Your task to perform on an android device: Go to location settings Image 0: 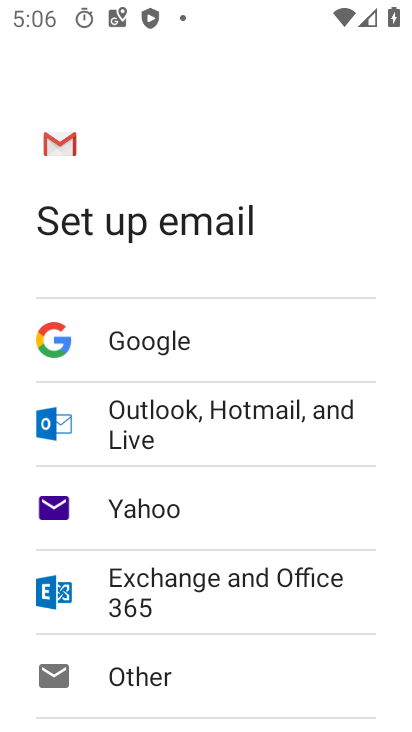
Step 0: press home button
Your task to perform on an android device: Go to location settings Image 1: 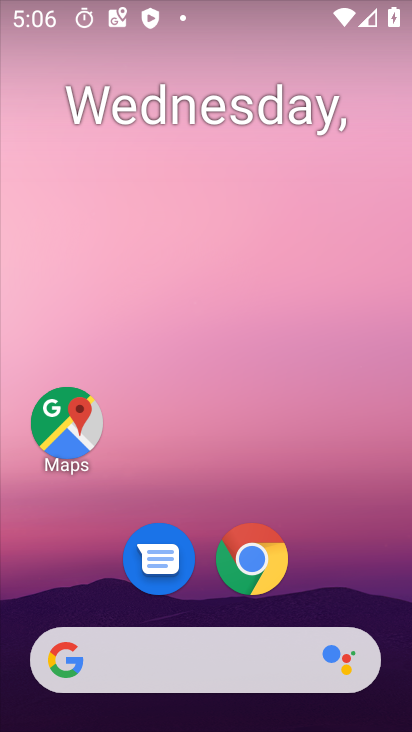
Step 1: drag from (353, 559) to (212, 23)
Your task to perform on an android device: Go to location settings Image 2: 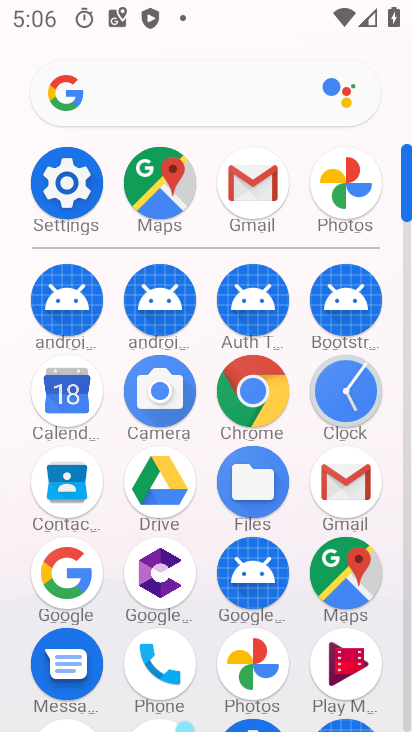
Step 2: click (67, 199)
Your task to perform on an android device: Go to location settings Image 3: 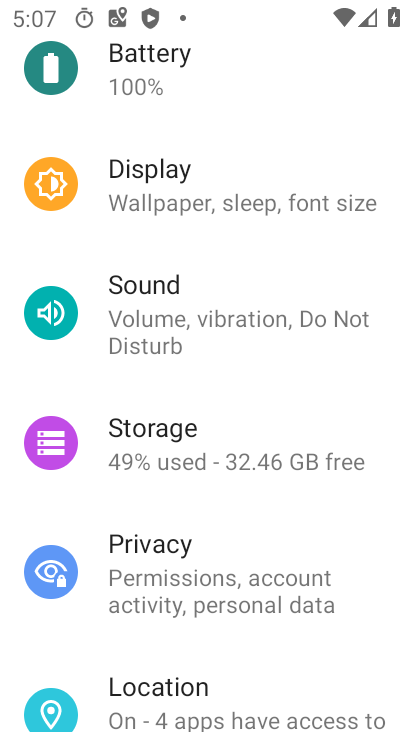
Step 3: click (208, 703)
Your task to perform on an android device: Go to location settings Image 4: 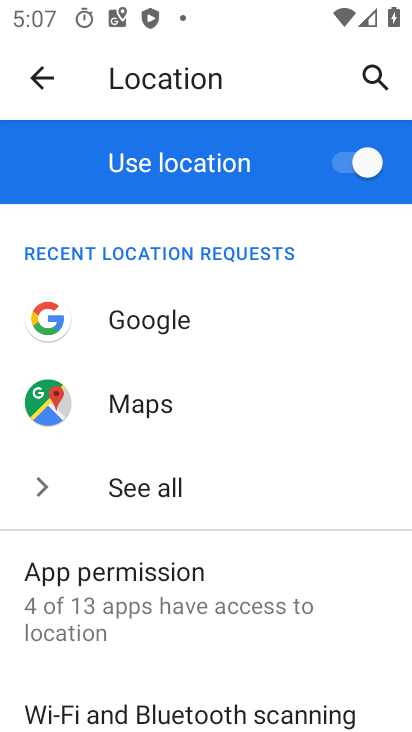
Step 4: task complete